Your task to perform on an android device: Show me recent news Image 0: 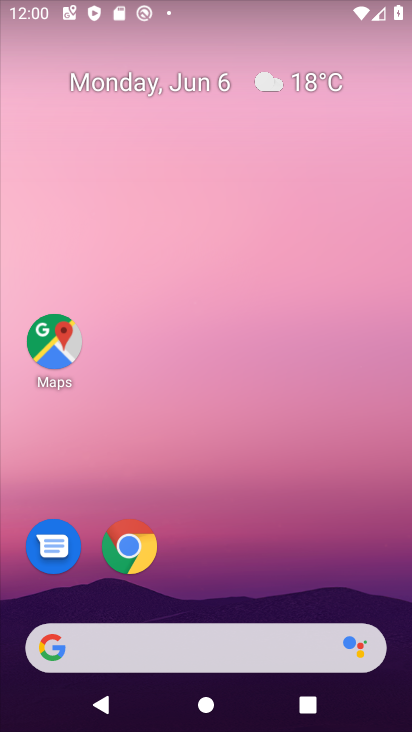
Step 0: click (231, 650)
Your task to perform on an android device: Show me recent news Image 1: 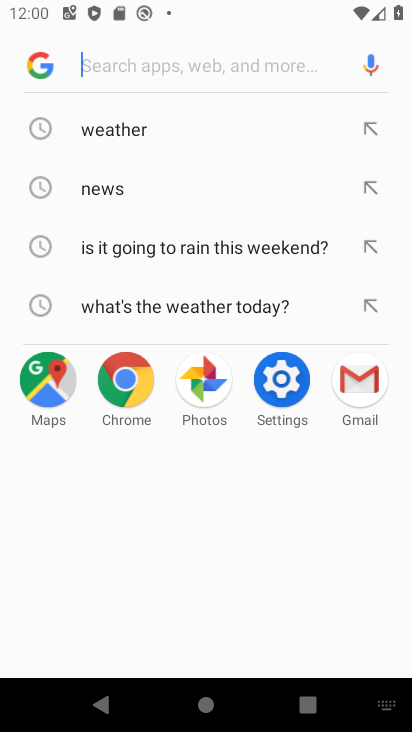
Step 1: click (143, 68)
Your task to perform on an android device: Show me recent news Image 2: 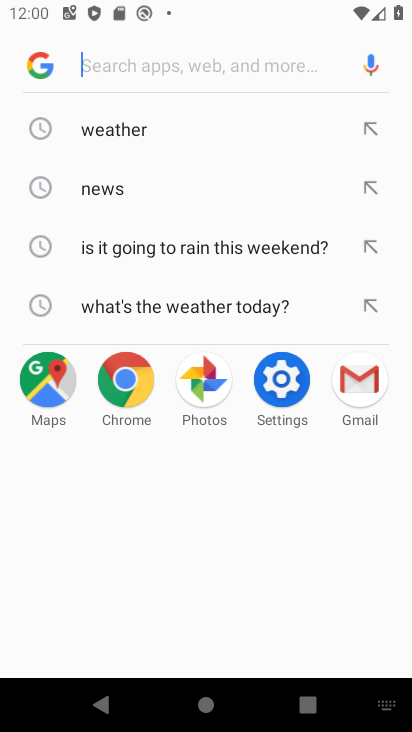
Step 2: type "recent news"
Your task to perform on an android device: Show me recent news Image 3: 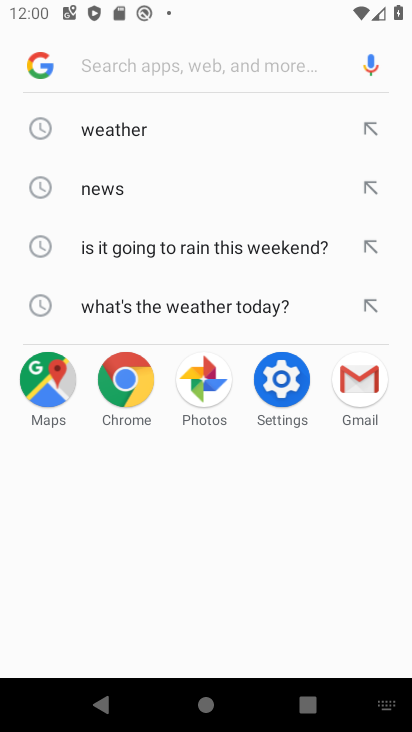
Step 3: click (179, 69)
Your task to perform on an android device: Show me recent news Image 4: 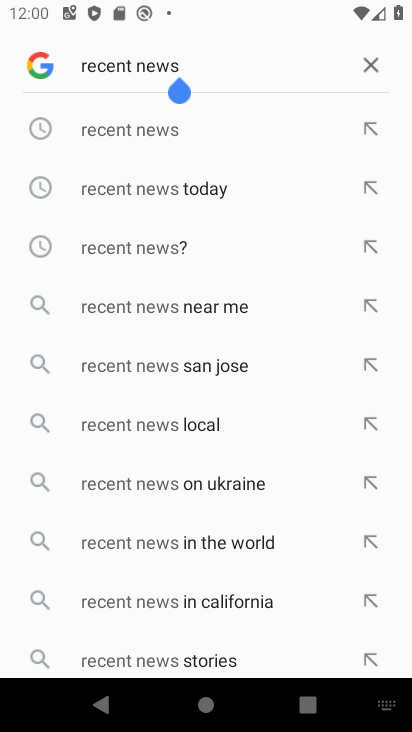
Step 4: click (146, 132)
Your task to perform on an android device: Show me recent news Image 5: 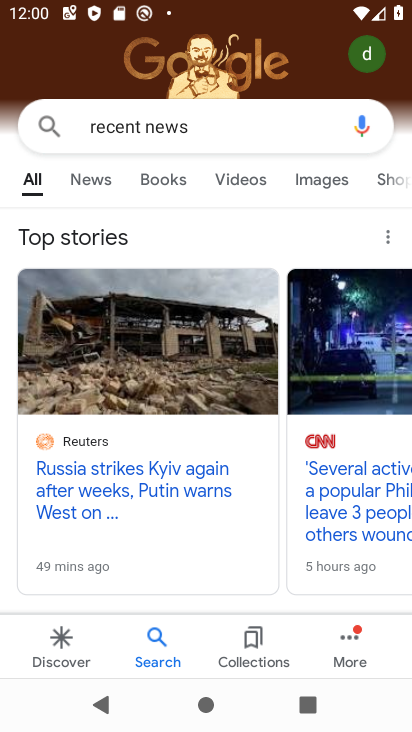
Step 5: task complete